Your task to perform on an android device: turn vacation reply on in the gmail app Image 0: 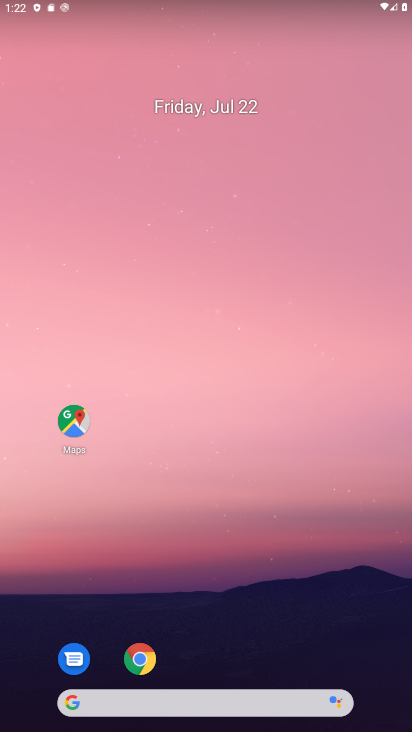
Step 0: task complete